Your task to perform on an android device: snooze an email in the gmail app Image 0: 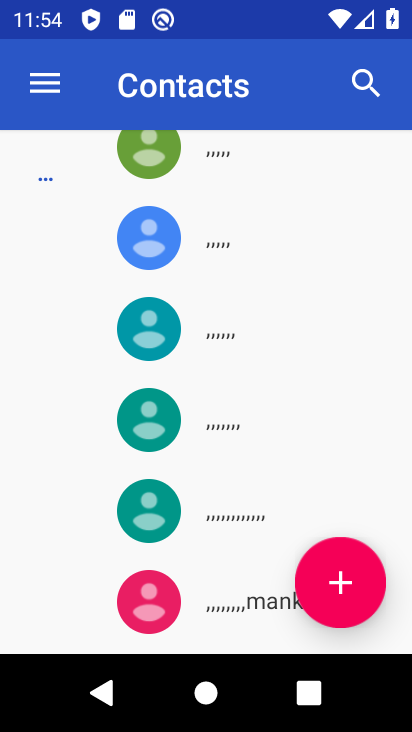
Step 0: press home button
Your task to perform on an android device: snooze an email in the gmail app Image 1: 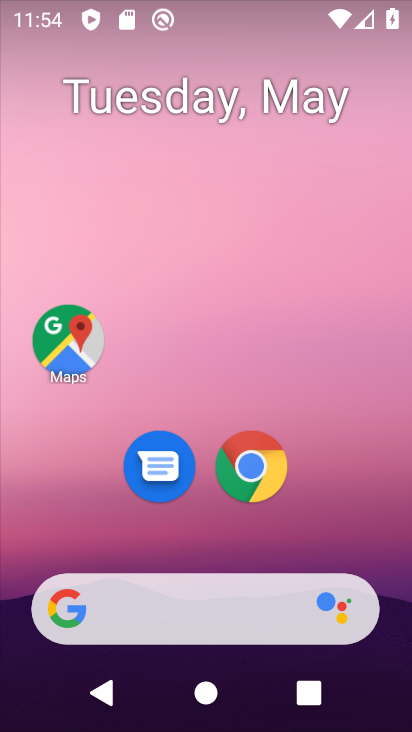
Step 1: drag from (213, 542) to (250, 69)
Your task to perform on an android device: snooze an email in the gmail app Image 2: 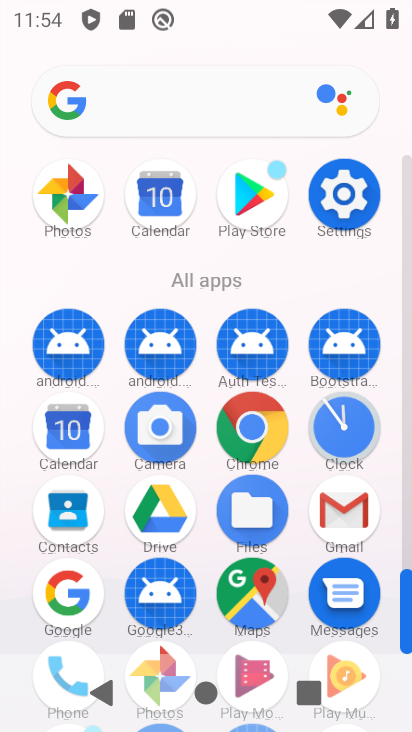
Step 2: click (341, 506)
Your task to perform on an android device: snooze an email in the gmail app Image 3: 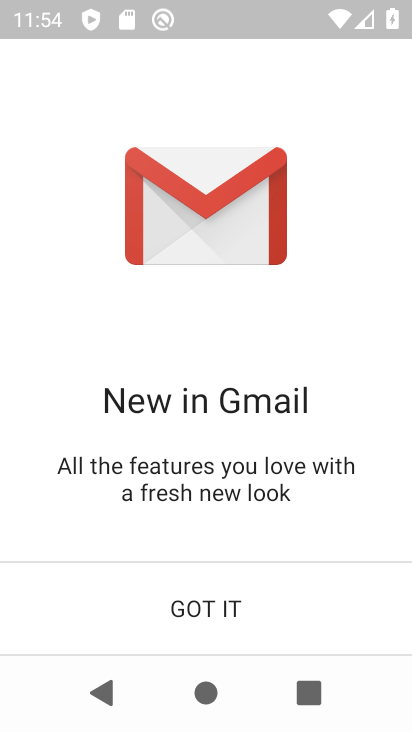
Step 3: click (211, 618)
Your task to perform on an android device: snooze an email in the gmail app Image 4: 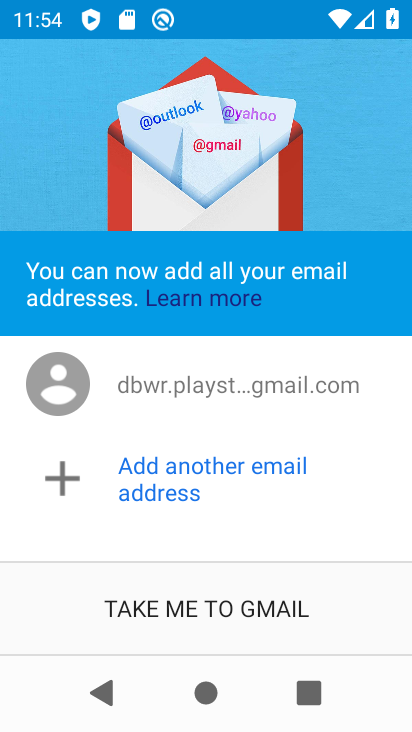
Step 4: click (213, 624)
Your task to perform on an android device: snooze an email in the gmail app Image 5: 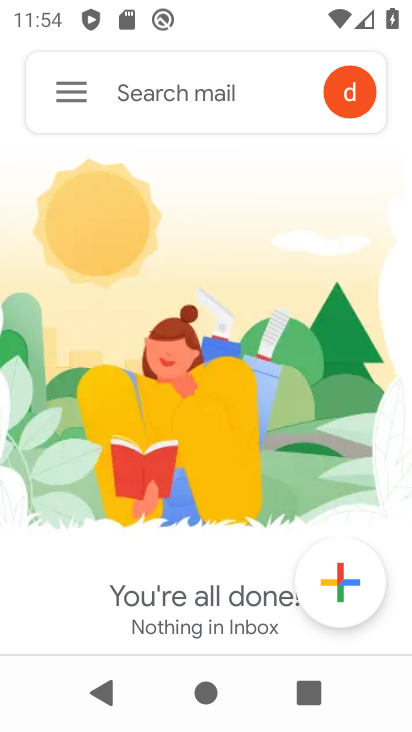
Step 5: click (74, 82)
Your task to perform on an android device: snooze an email in the gmail app Image 6: 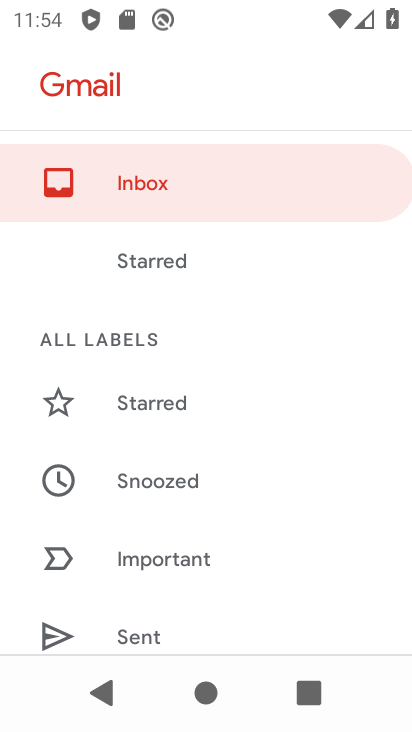
Step 6: click (124, 192)
Your task to perform on an android device: snooze an email in the gmail app Image 7: 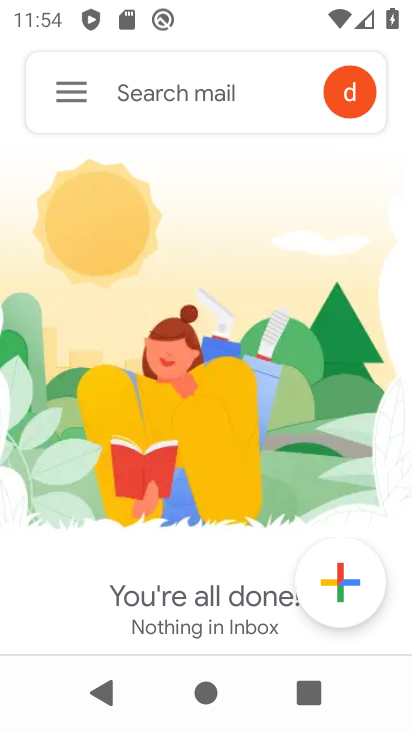
Step 7: drag from (203, 557) to (220, 81)
Your task to perform on an android device: snooze an email in the gmail app Image 8: 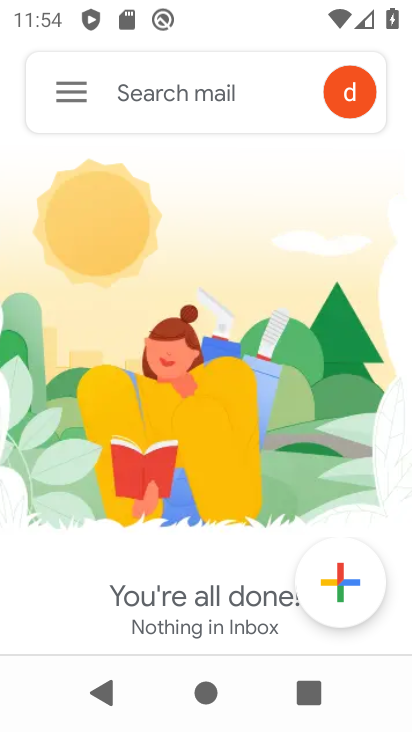
Step 8: click (72, 80)
Your task to perform on an android device: snooze an email in the gmail app Image 9: 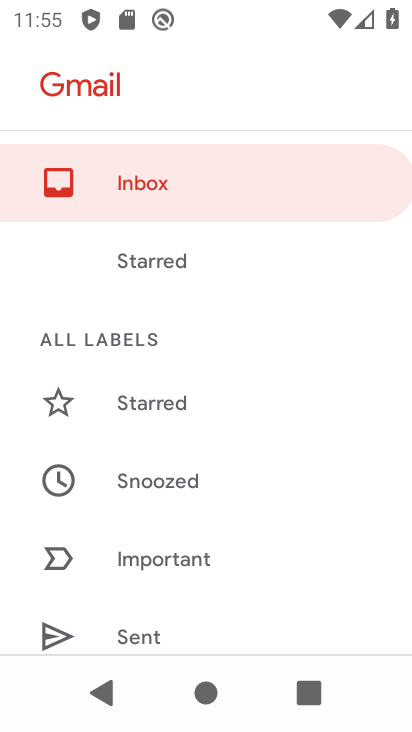
Step 9: task complete